Your task to perform on an android device: Open maps Image 0: 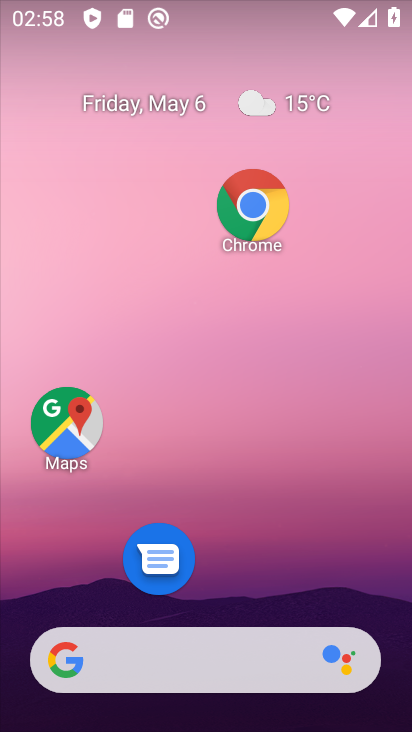
Step 0: click (75, 425)
Your task to perform on an android device: Open maps Image 1: 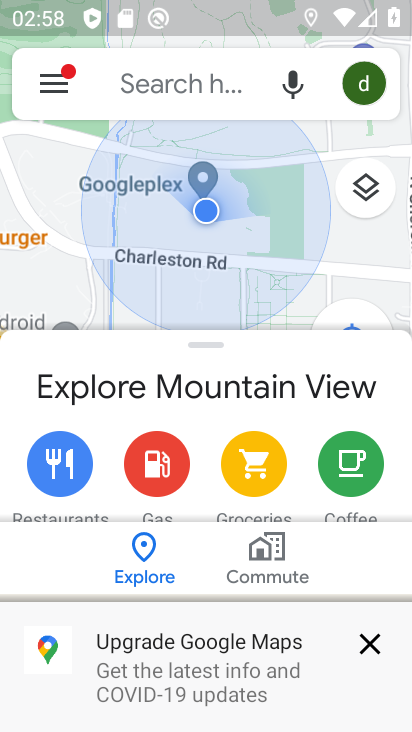
Step 1: task complete